Your task to perform on an android device: What is the news today? Image 0: 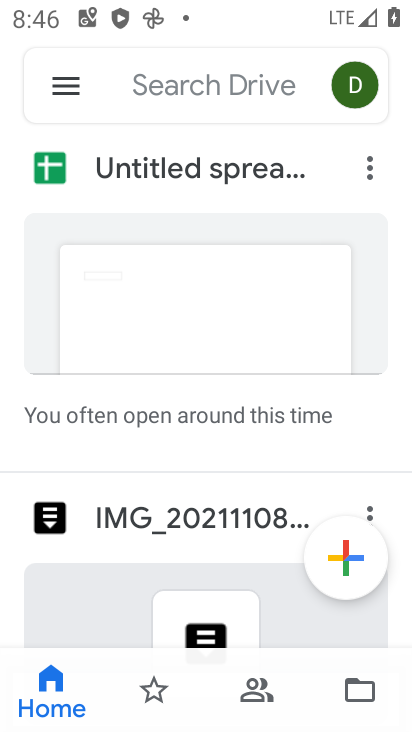
Step 0: press home button
Your task to perform on an android device: What is the news today? Image 1: 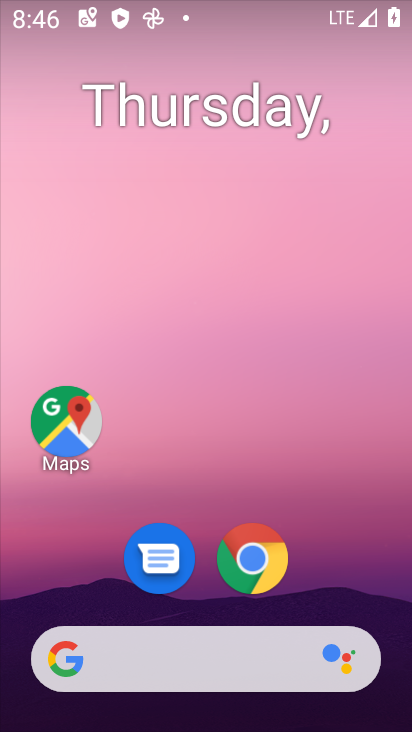
Step 1: drag from (187, 626) to (272, 248)
Your task to perform on an android device: What is the news today? Image 2: 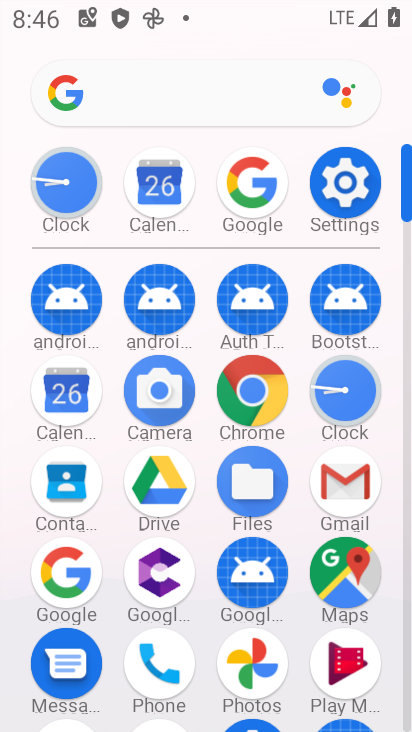
Step 2: click (249, 192)
Your task to perform on an android device: What is the news today? Image 3: 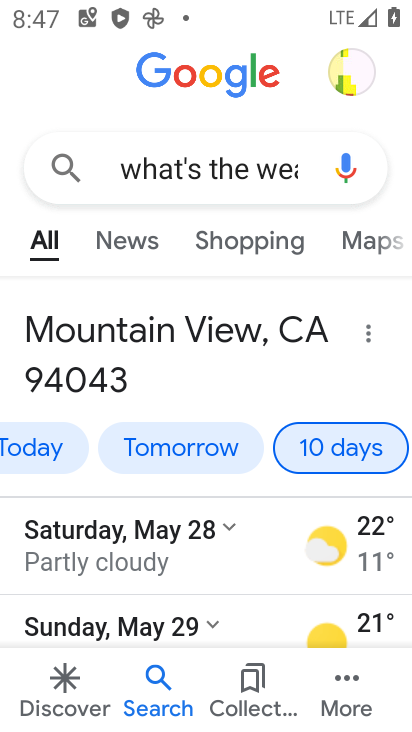
Step 3: click (275, 166)
Your task to perform on an android device: What is the news today? Image 4: 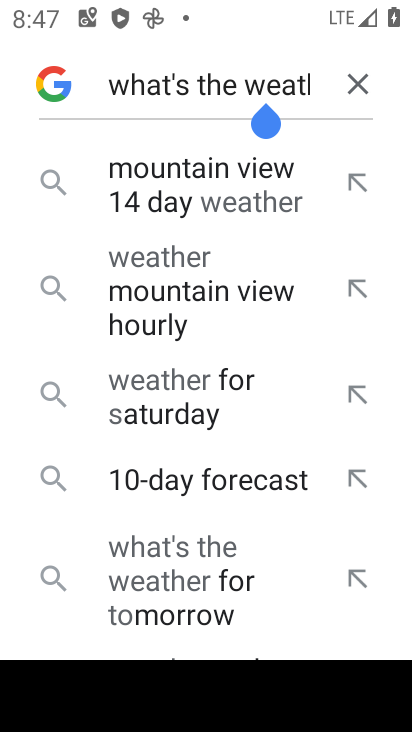
Step 4: click (358, 84)
Your task to perform on an android device: What is the news today? Image 5: 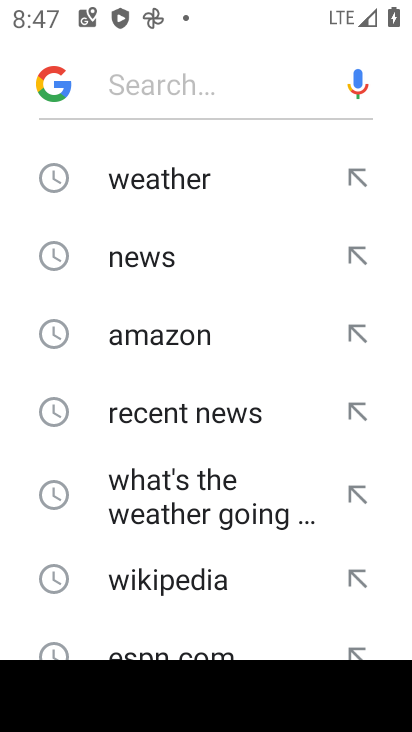
Step 5: drag from (195, 571) to (243, 110)
Your task to perform on an android device: What is the news today? Image 6: 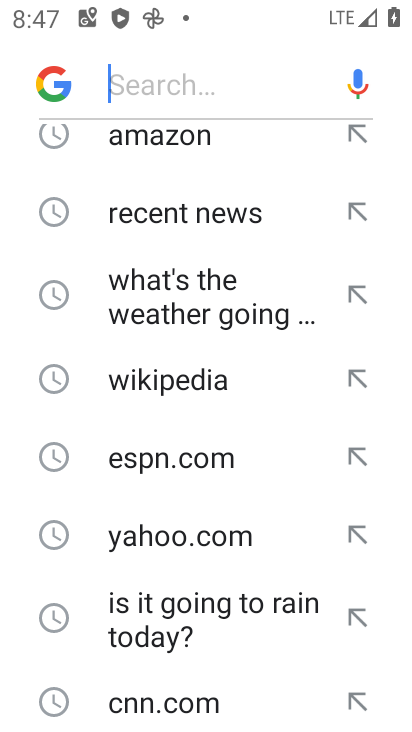
Step 6: drag from (215, 681) to (219, 259)
Your task to perform on an android device: What is the news today? Image 7: 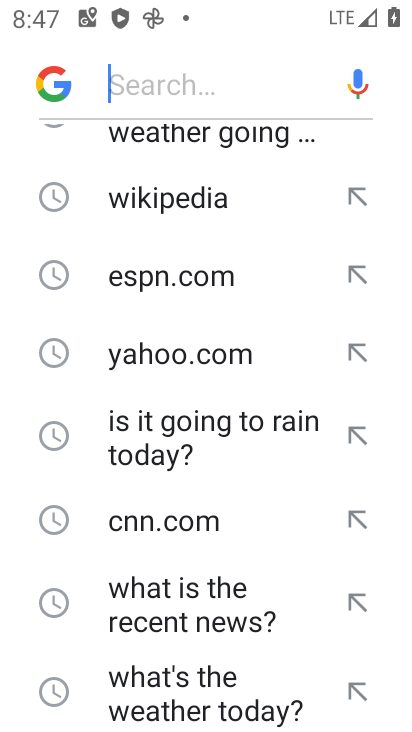
Step 7: drag from (182, 618) to (229, 132)
Your task to perform on an android device: What is the news today? Image 8: 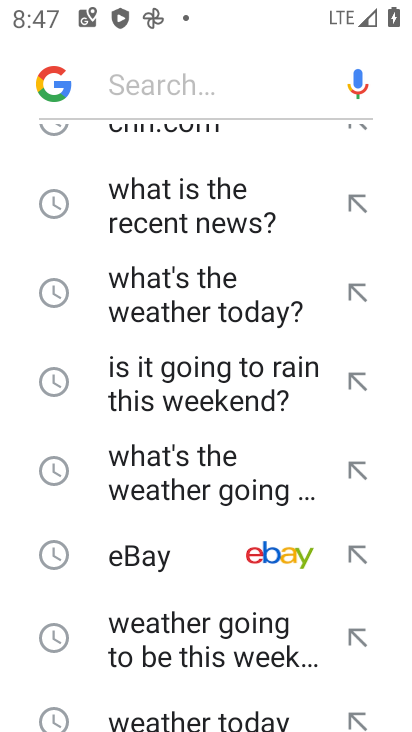
Step 8: drag from (200, 661) to (263, 327)
Your task to perform on an android device: What is the news today? Image 9: 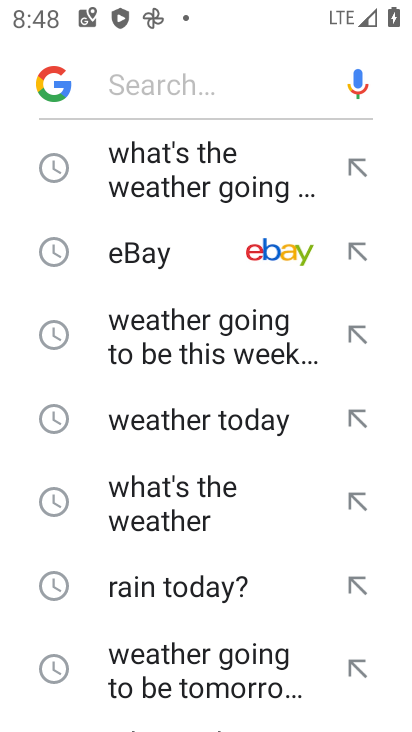
Step 9: drag from (228, 709) to (260, 425)
Your task to perform on an android device: What is the news today? Image 10: 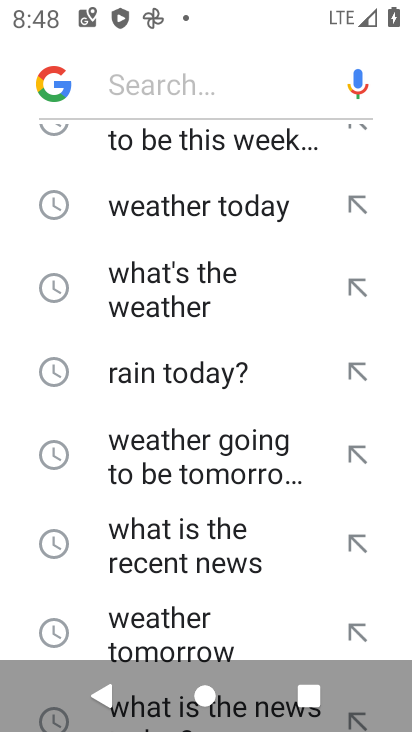
Step 10: drag from (207, 607) to (181, 178)
Your task to perform on an android device: What is the news today? Image 11: 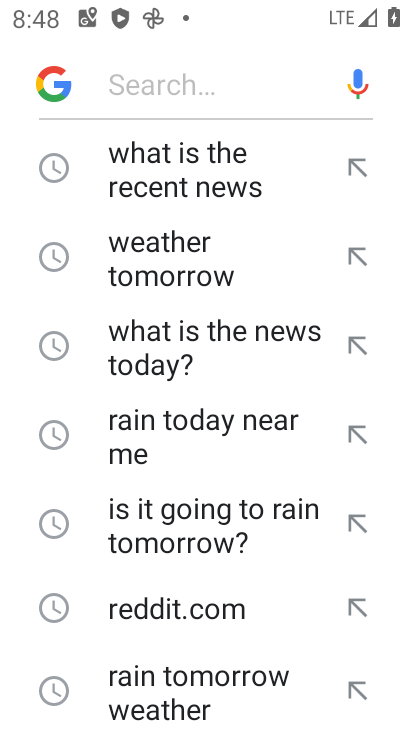
Step 11: click (215, 328)
Your task to perform on an android device: What is the news today? Image 12: 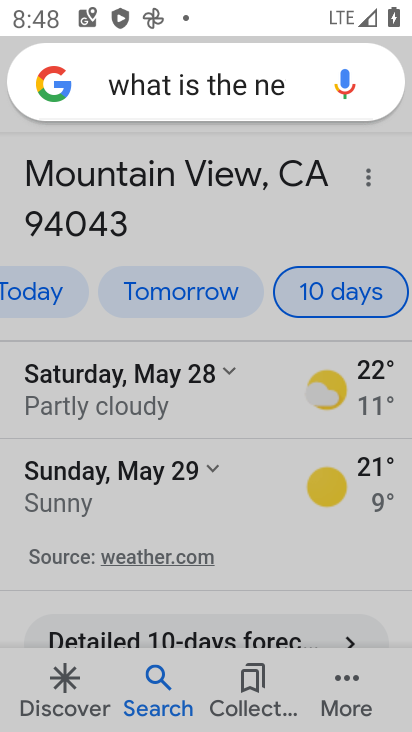
Step 12: click (215, 328)
Your task to perform on an android device: What is the news today? Image 13: 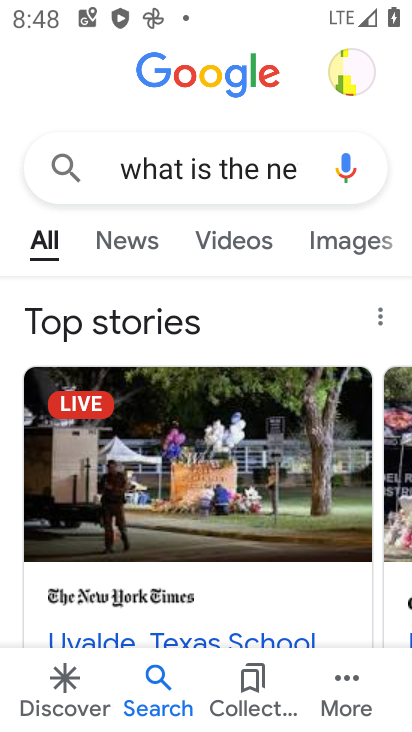
Step 13: task complete